Your task to perform on an android device: Check the news Image 0: 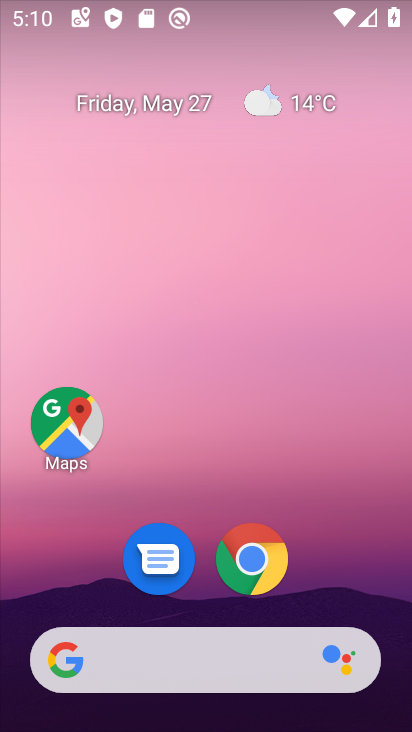
Step 0: click (247, 553)
Your task to perform on an android device: Check the news Image 1: 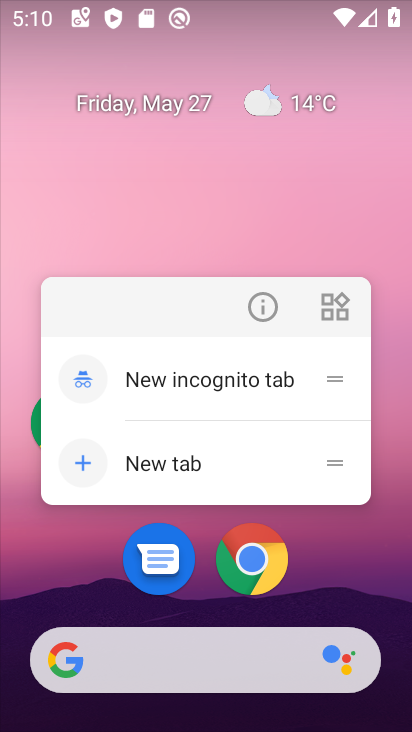
Step 1: click (247, 553)
Your task to perform on an android device: Check the news Image 2: 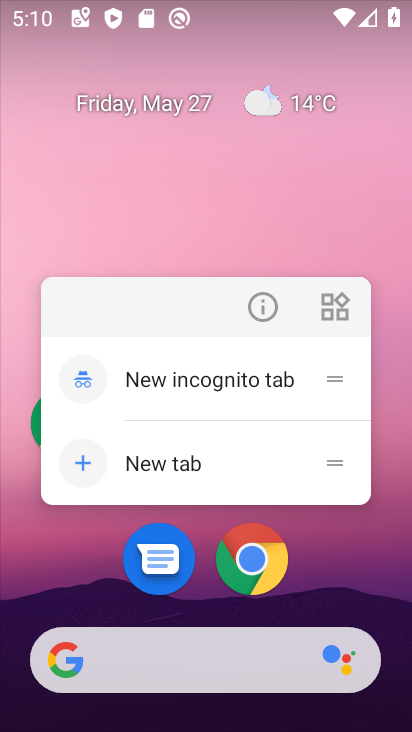
Step 2: click (337, 568)
Your task to perform on an android device: Check the news Image 3: 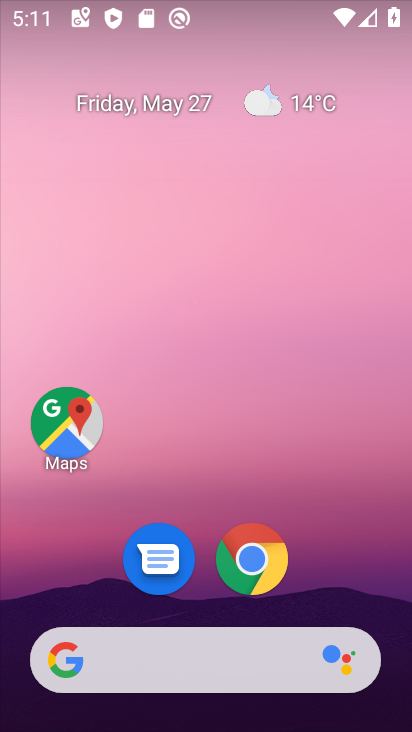
Step 3: click (252, 554)
Your task to perform on an android device: Check the news Image 4: 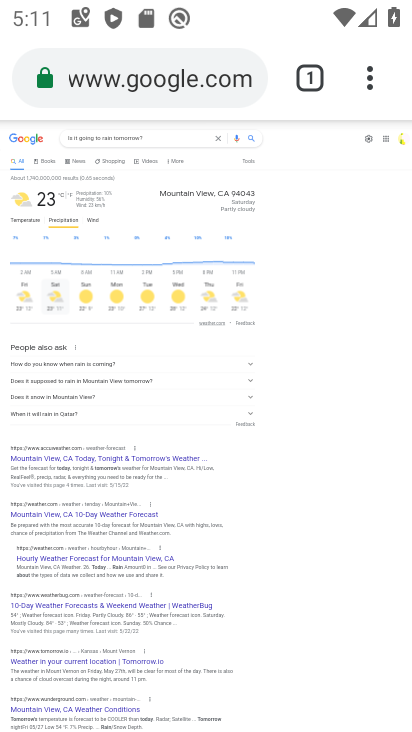
Step 4: click (216, 75)
Your task to perform on an android device: Check the news Image 5: 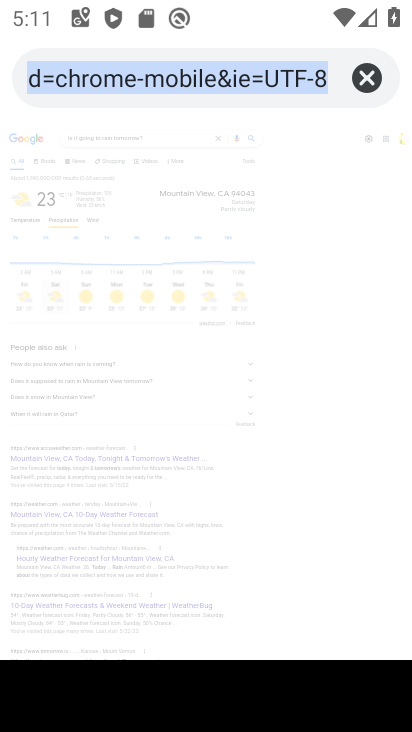
Step 5: click (360, 77)
Your task to perform on an android device: Check the news Image 6: 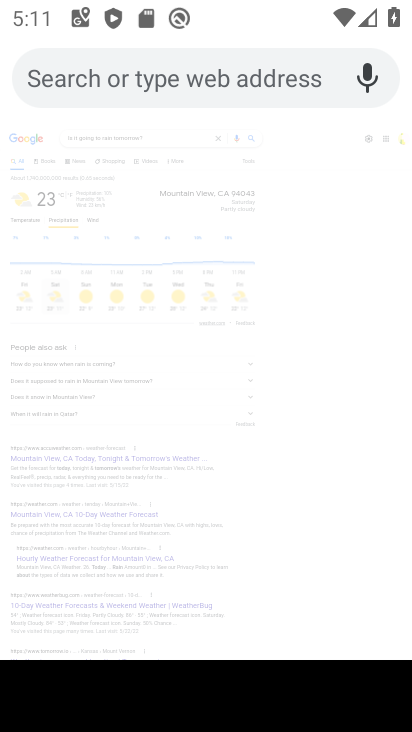
Step 6: type "Check the news"
Your task to perform on an android device: Check the news Image 7: 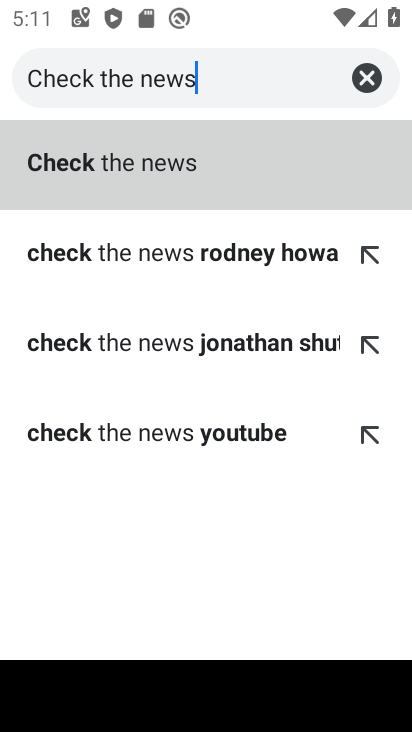
Step 7: click (177, 159)
Your task to perform on an android device: Check the news Image 8: 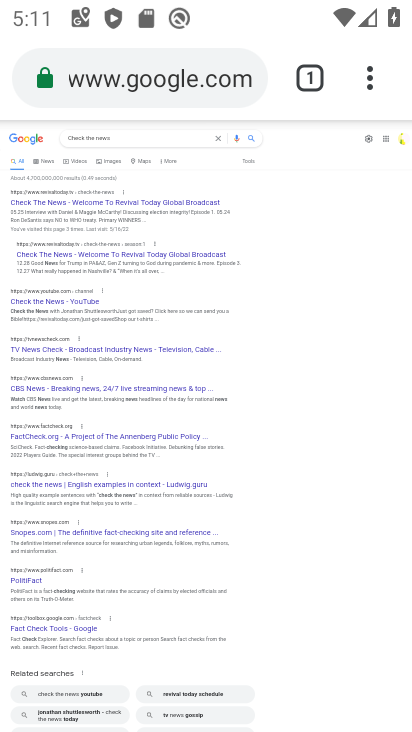
Step 8: task complete